Your task to perform on an android device: Open the calendar and show me this week's events? Image 0: 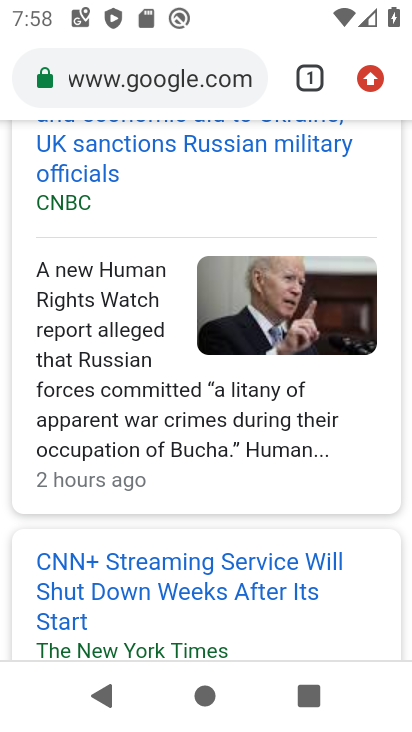
Step 0: press back button
Your task to perform on an android device: Open the calendar and show me this week's events? Image 1: 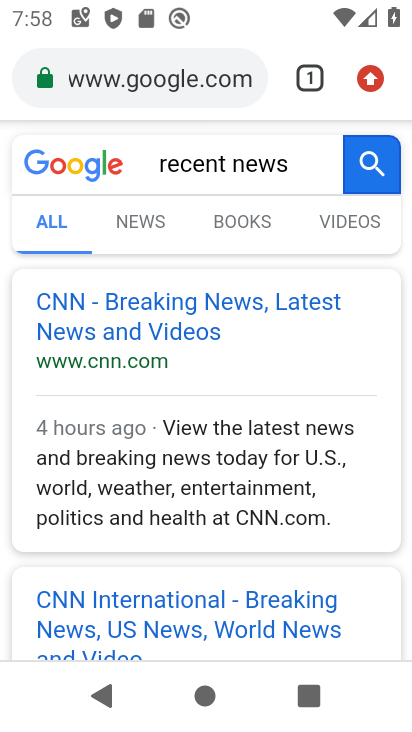
Step 1: press back button
Your task to perform on an android device: Open the calendar and show me this week's events? Image 2: 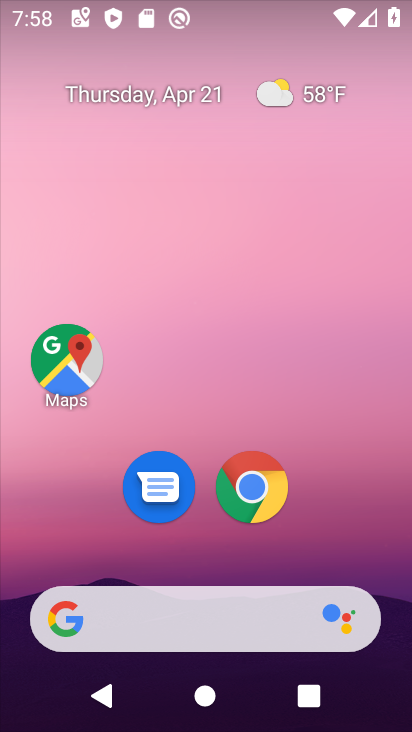
Step 2: drag from (317, 552) to (240, 18)
Your task to perform on an android device: Open the calendar and show me this week's events? Image 3: 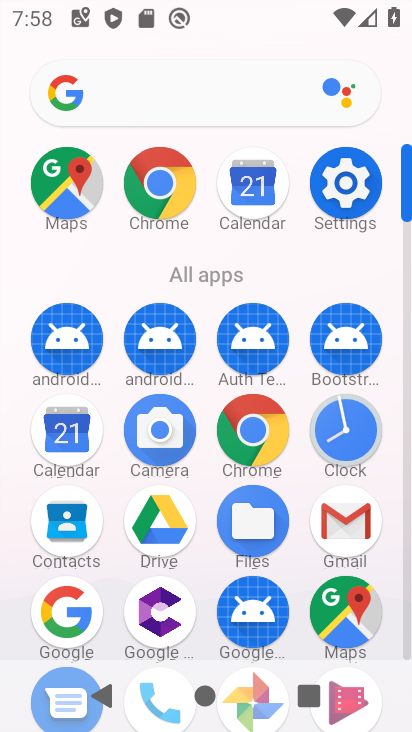
Step 3: click (64, 424)
Your task to perform on an android device: Open the calendar and show me this week's events? Image 4: 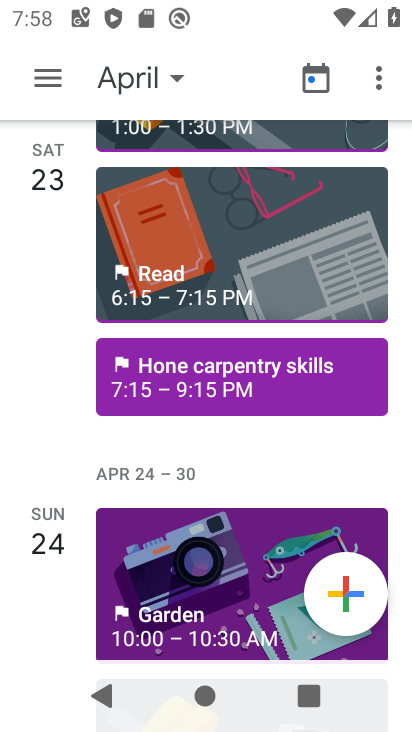
Step 4: click (48, 68)
Your task to perform on an android device: Open the calendar and show me this week's events? Image 5: 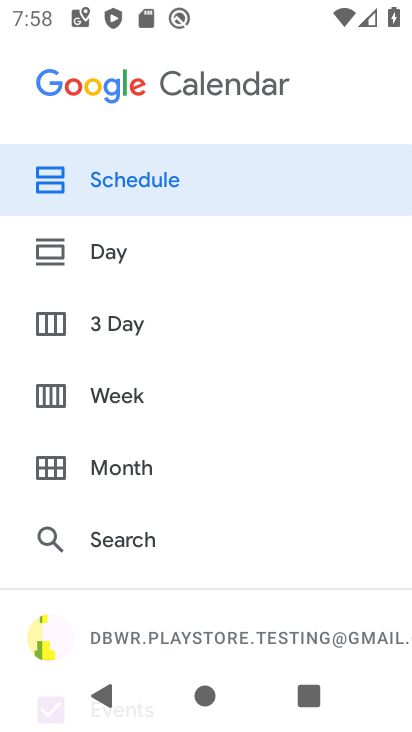
Step 5: click (176, 390)
Your task to perform on an android device: Open the calendar and show me this week's events? Image 6: 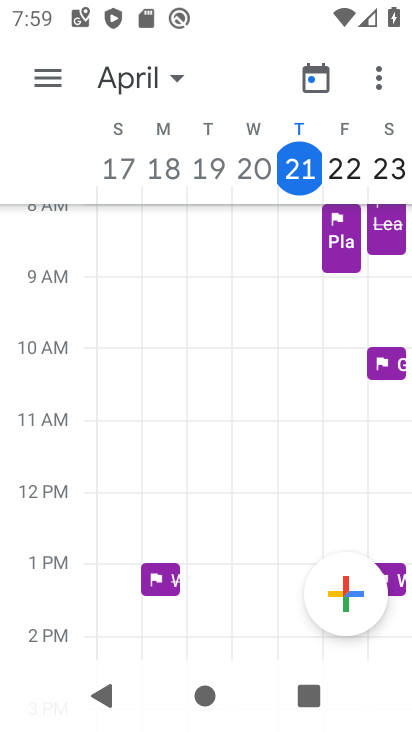
Step 6: task complete